Your task to perform on an android device: uninstall "Google Translate" Image 0: 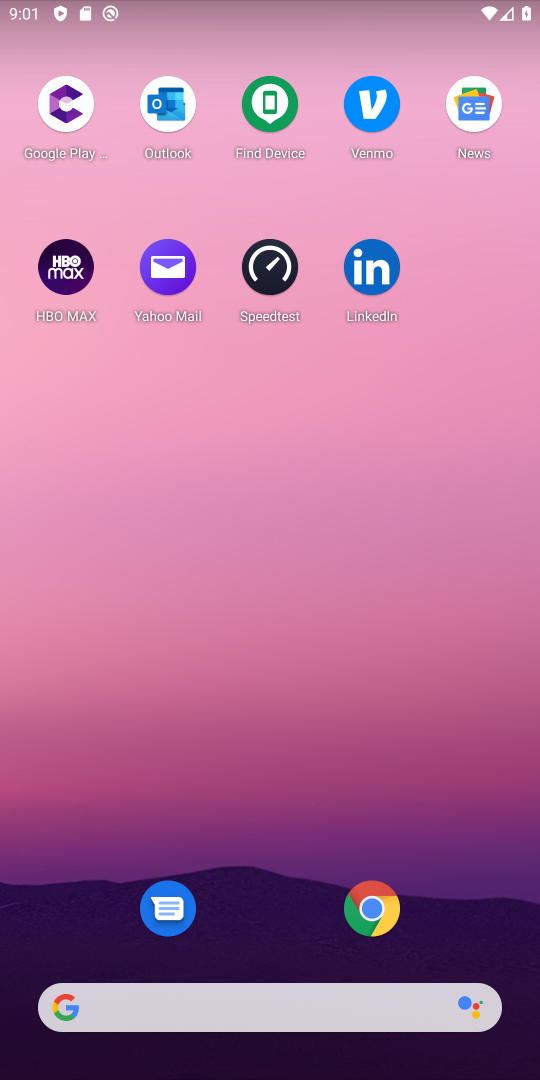
Step 0: drag from (233, 921) to (375, 0)
Your task to perform on an android device: uninstall "Google Translate" Image 1: 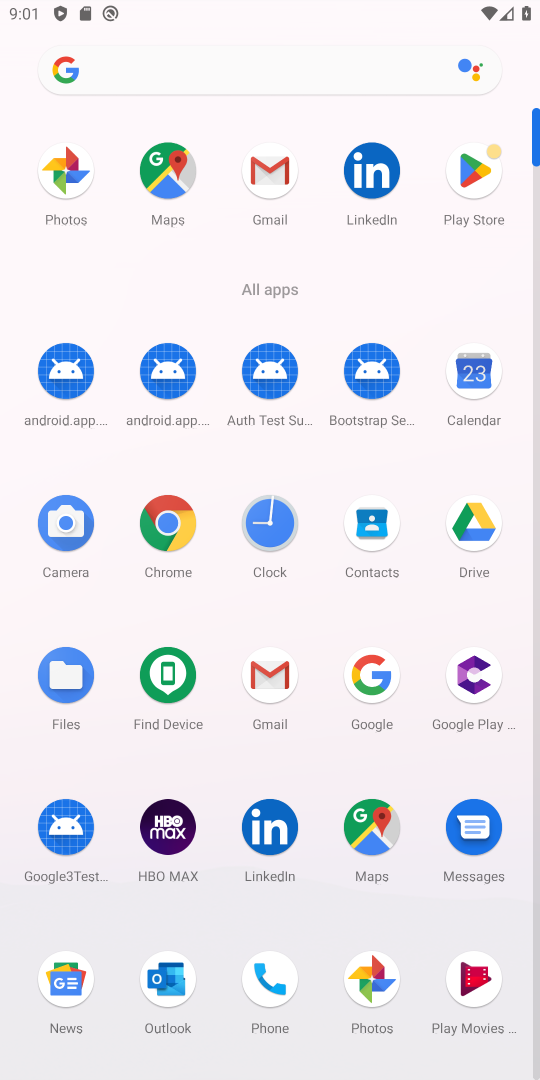
Step 1: click (465, 207)
Your task to perform on an android device: uninstall "Google Translate" Image 2: 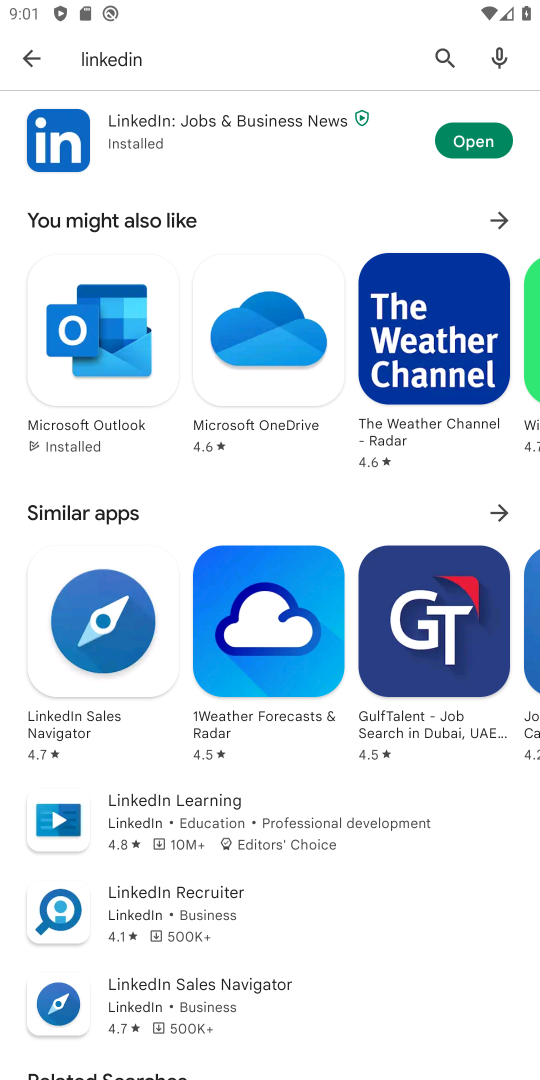
Step 2: click (203, 57)
Your task to perform on an android device: uninstall "Google Translate" Image 3: 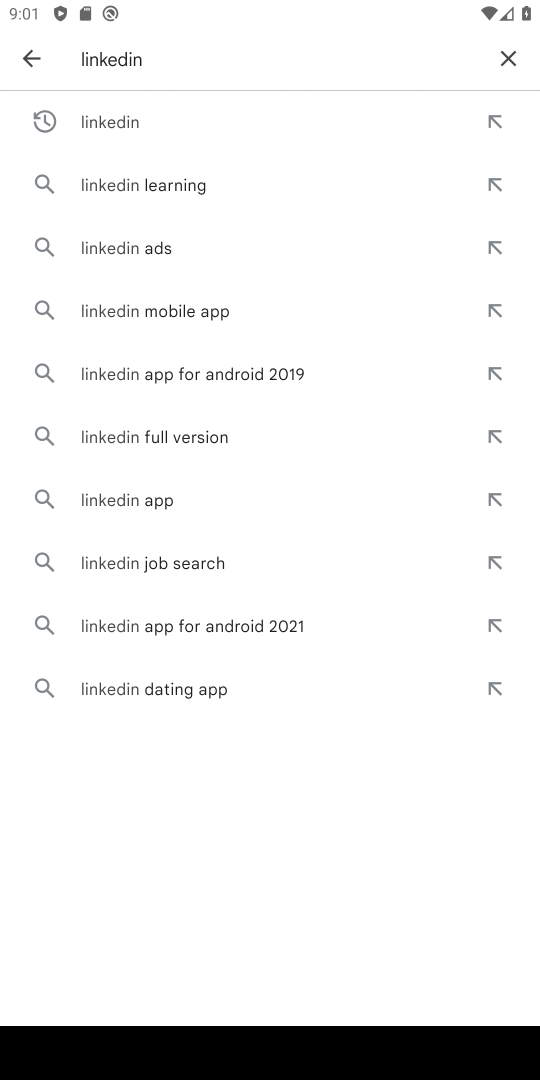
Step 3: click (494, 42)
Your task to perform on an android device: uninstall "Google Translate" Image 4: 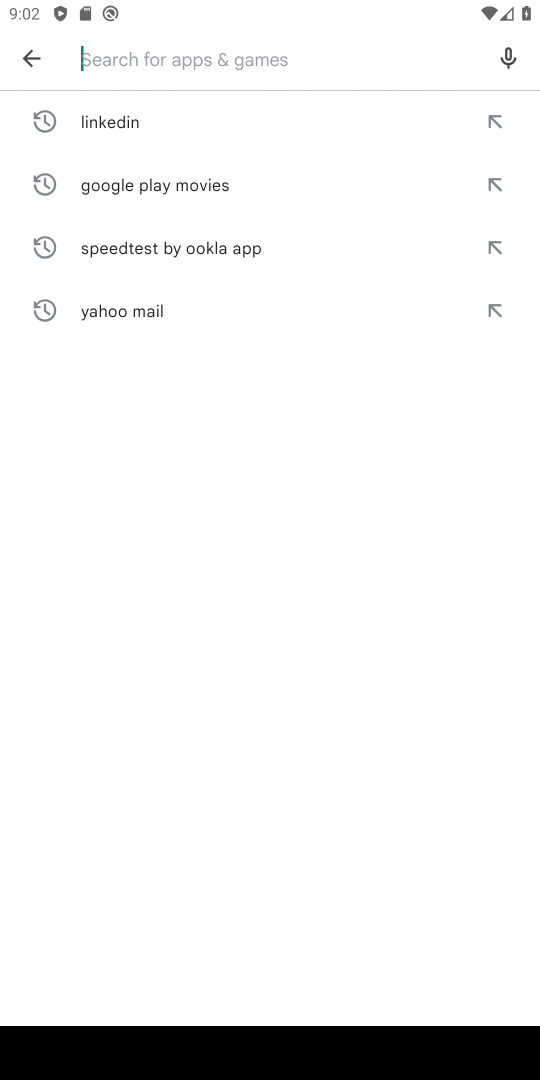
Step 4: type "google translate"
Your task to perform on an android device: uninstall "Google Translate" Image 5: 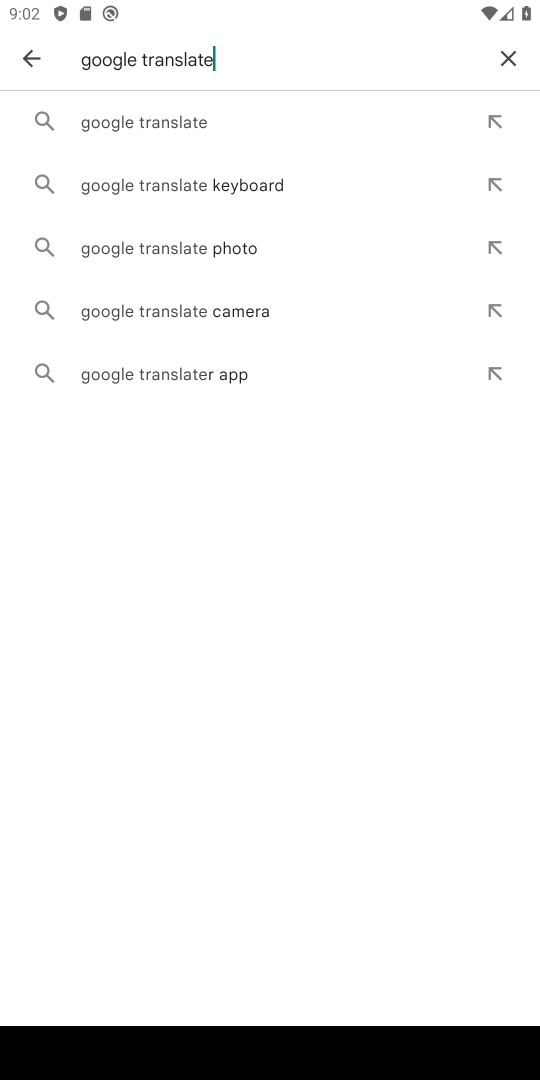
Step 5: click (137, 122)
Your task to perform on an android device: uninstall "Google Translate" Image 6: 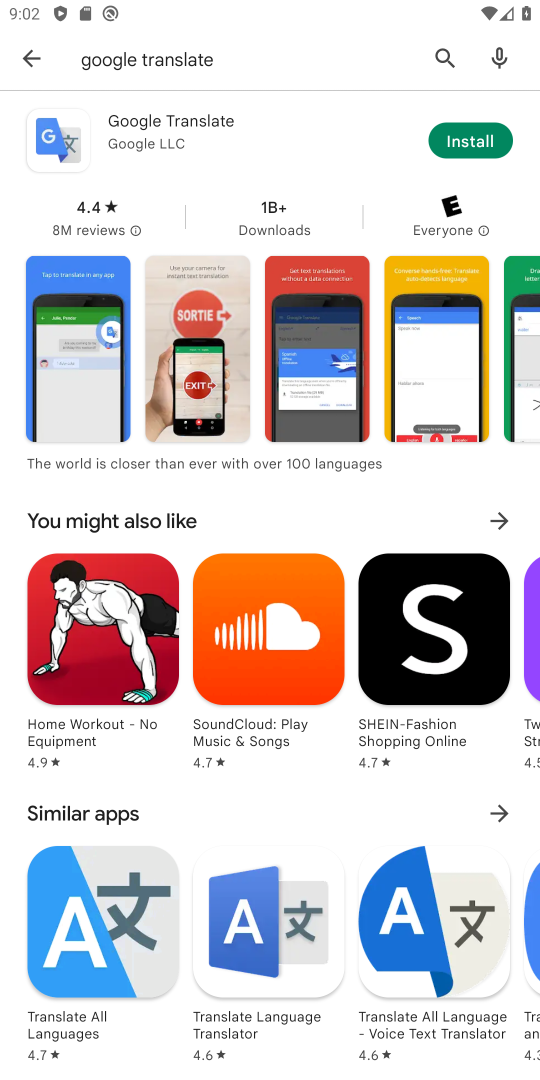
Step 6: task complete